Your task to perform on an android device: make emails show in primary in the gmail app Image 0: 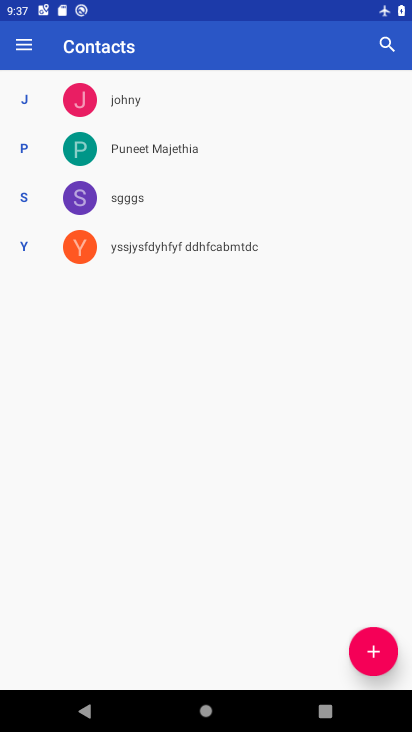
Step 0: press home button
Your task to perform on an android device: make emails show in primary in the gmail app Image 1: 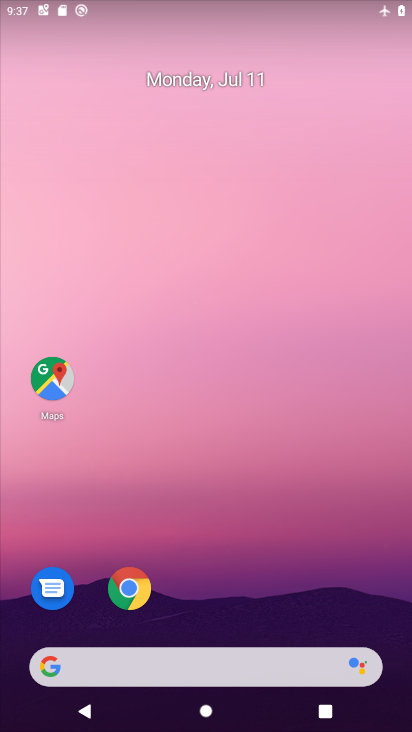
Step 1: drag from (231, 573) to (229, 415)
Your task to perform on an android device: make emails show in primary in the gmail app Image 2: 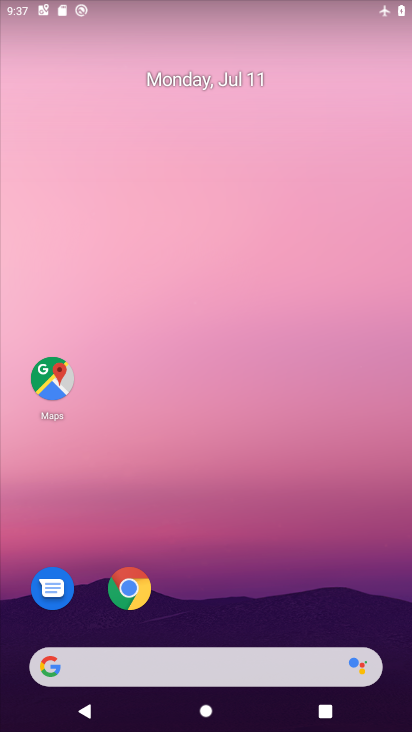
Step 2: drag from (241, 620) to (219, 303)
Your task to perform on an android device: make emails show in primary in the gmail app Image 3: 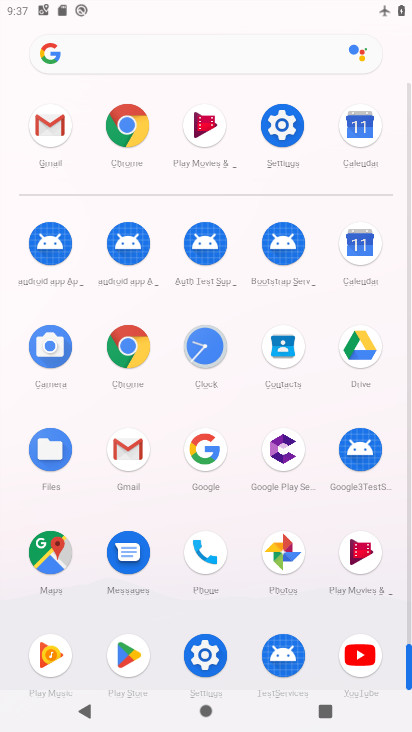
Step 3: click (134, 441)
Your task to perform on an android device: make emails show in primary in the gmail app Image 4: 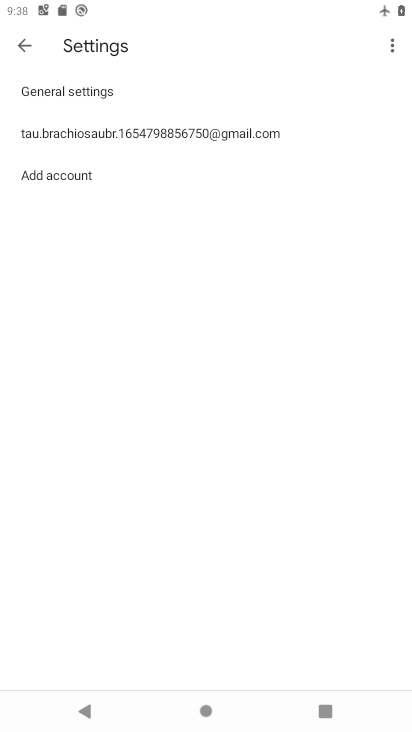
Step 4: click (18, 25)
Your task to perform on an android device: make emails show in primary in the gmail app Image 5: 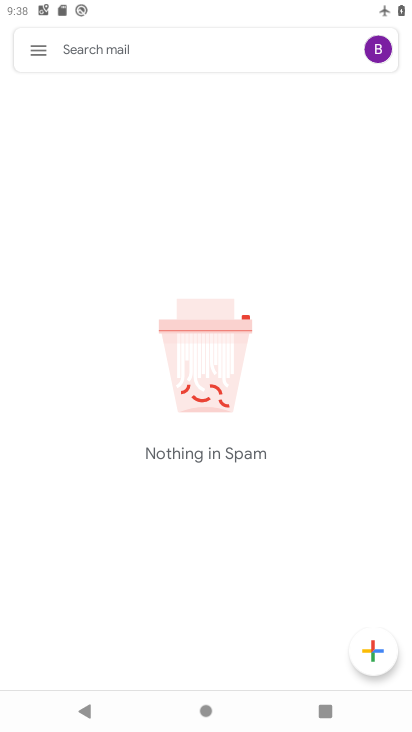
Step 5: click (34, 32)
Your task to perform on an android device: make emails show in primary in the gmail app Image 6: 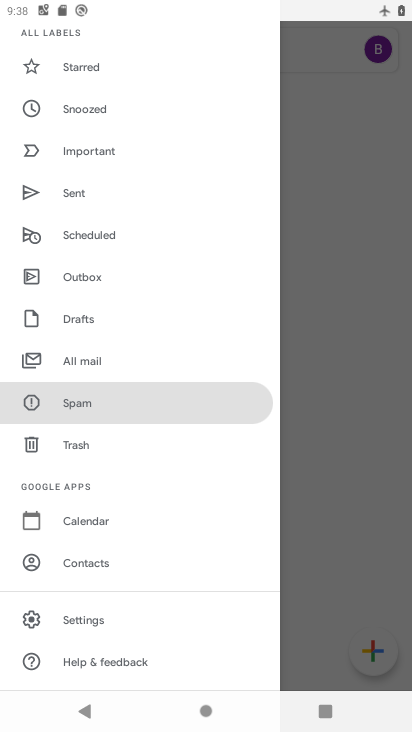
Step 6: click (128, 353)
Your task to perform on an android device: make emails show in primary in the gmail app Image 7: 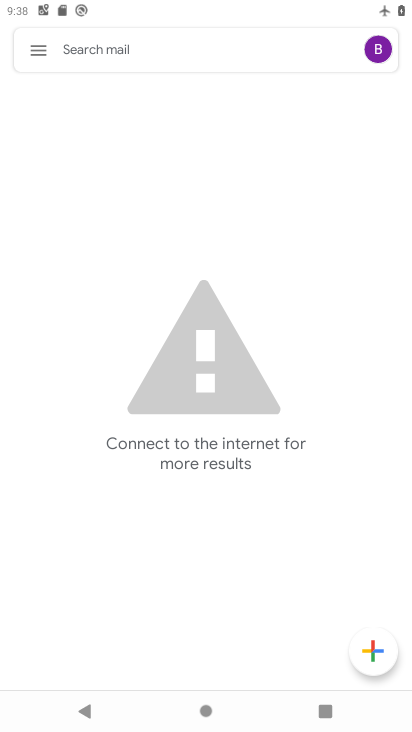
Step 7: task complete